Your task to perform on an android device: Go to Maps Image 0: 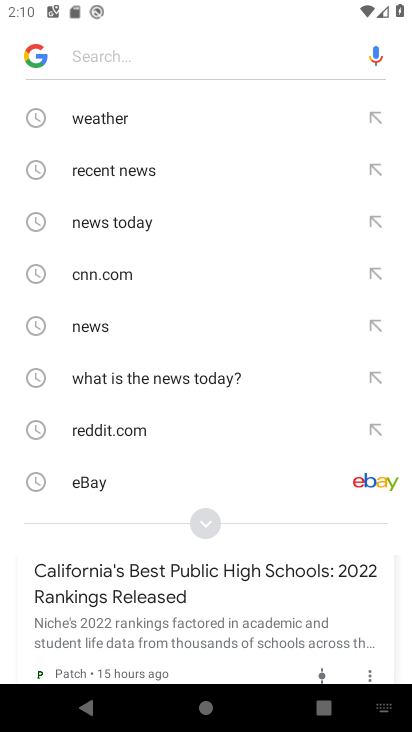
Step 0: press home button
Your task to perform on an android device: Go to Maps Image 1: 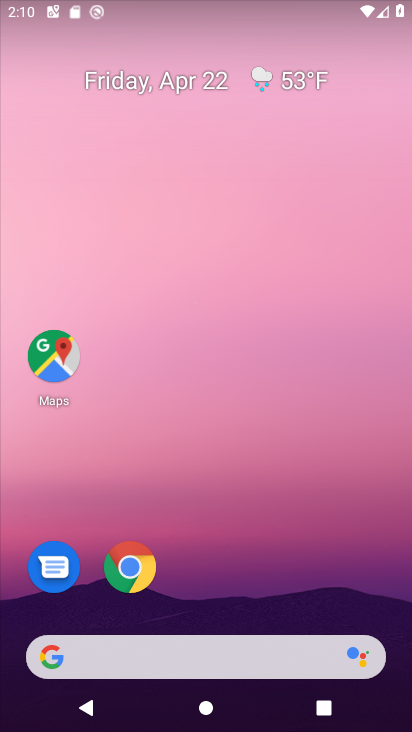
Step 1: click (36, 359)
Your task to perform on an android device: Go to Maps Image 2: 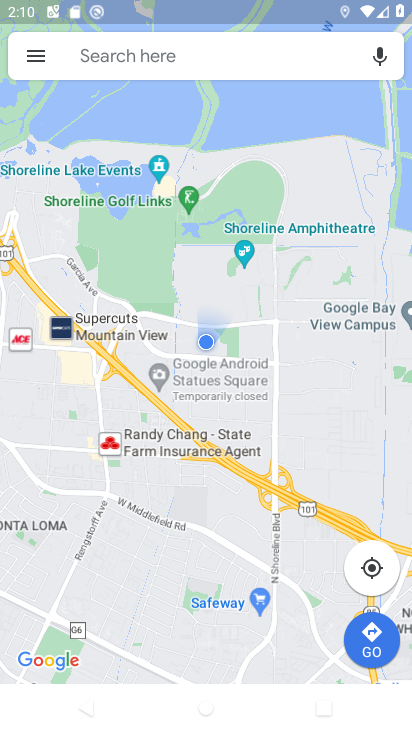
Step 2: task complete